Your task to perform on an android device: Search for Italian restaurants on Maps Image 0: 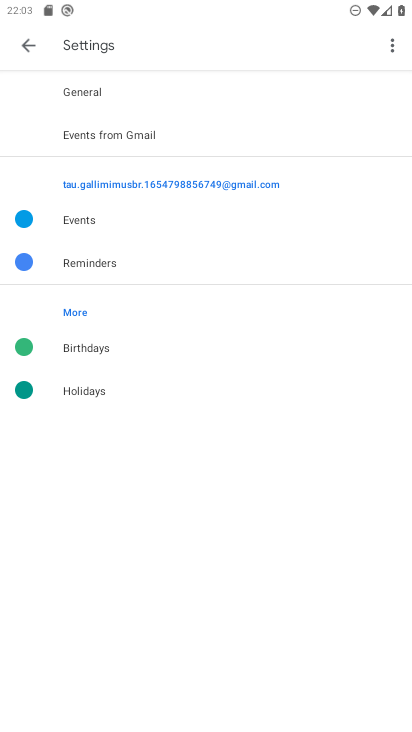
Step 0: press home button
Your task to perform on an android device: Search for Italian restaurants on Maps Image 1: 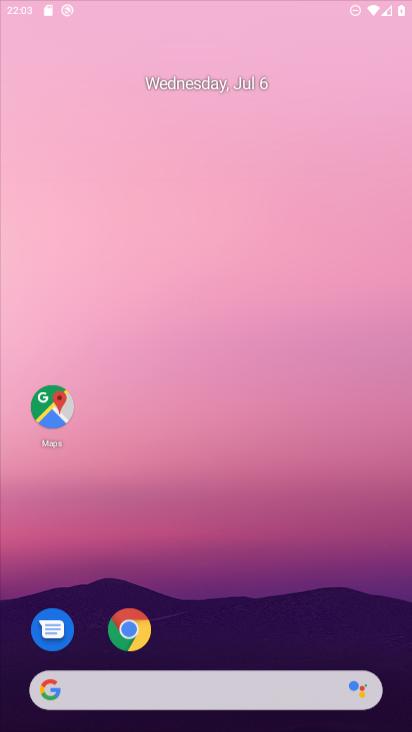
Step 1: drag from (317, 481) to (239, 6)
Your task to perform on an android device: Search for Italian restaurants on Maps Image 2: 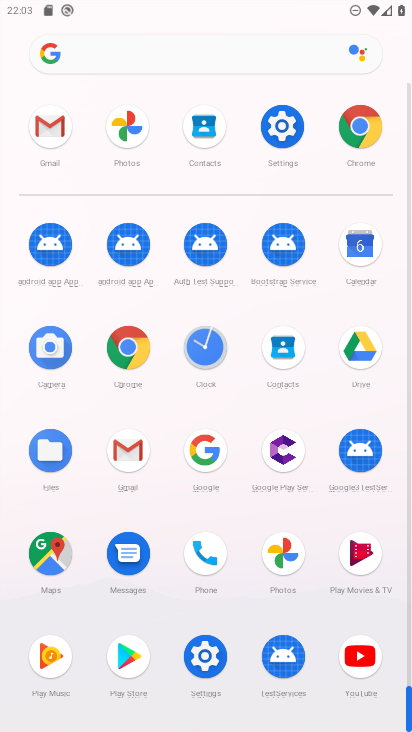
Step 2: click (61, 145)
Your task to perform on an android device: Search for Italian restaurants on Maps Image 3: 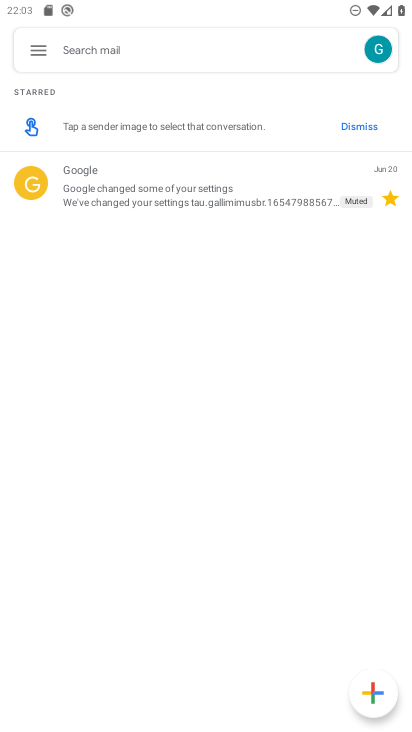
Step 3: press home button
Your task to perform on an android device: Search for Italian restaurants on Maps Image 4: 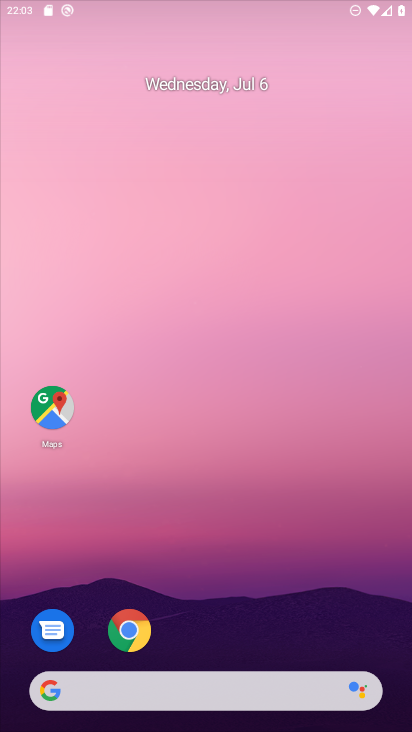
Step 4: drag from (281, 581) to (282, 698)
Your task to perform on an android device: Search for Italian restaurants on Maps Image 5: 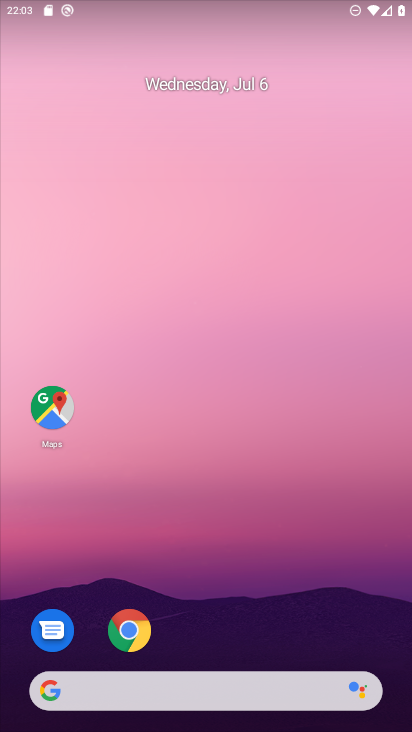
Step 5: click (48, 402)
Your task to perform on an android device: Search for Italian restaurants on Maps Image 6: 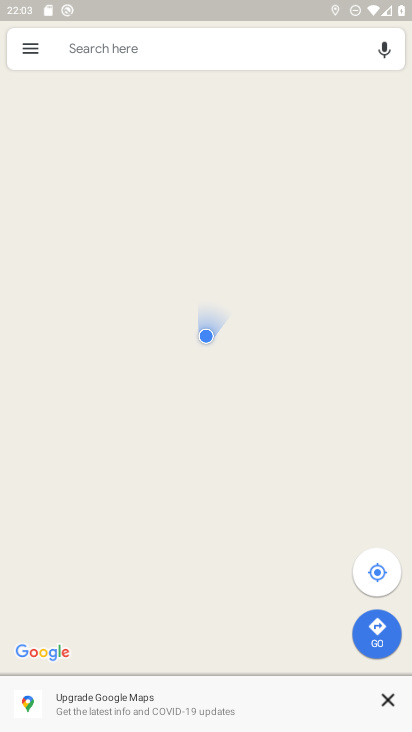
Step 6: click (244, 59)
Your task to perform on an android device: Search for Italian restaurants on Maps Image 7: 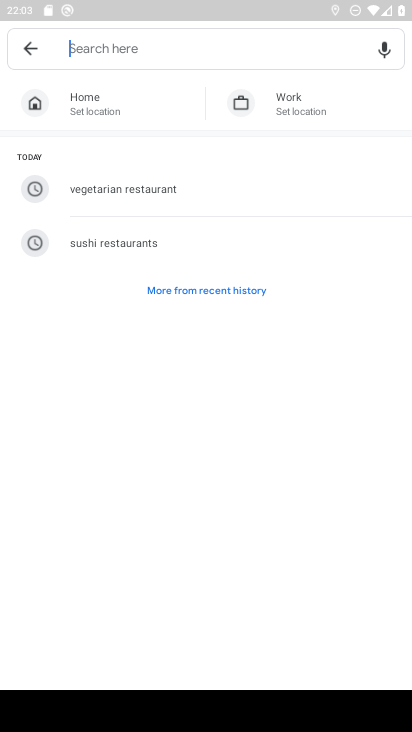
Step 7: type "Italian restaurants "
Your task to perform on an android device: Search for Italian restaurants on Maps Image 8: 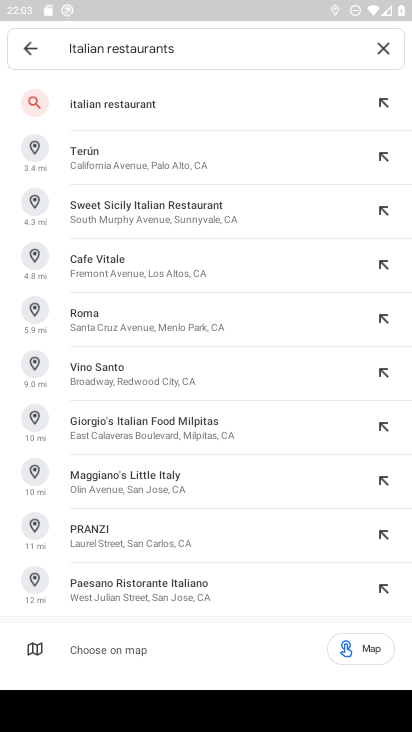
Step 8: click (134, 109)
Your task to perform on an android device: Search for Italian restaurants on Maps Image 9: 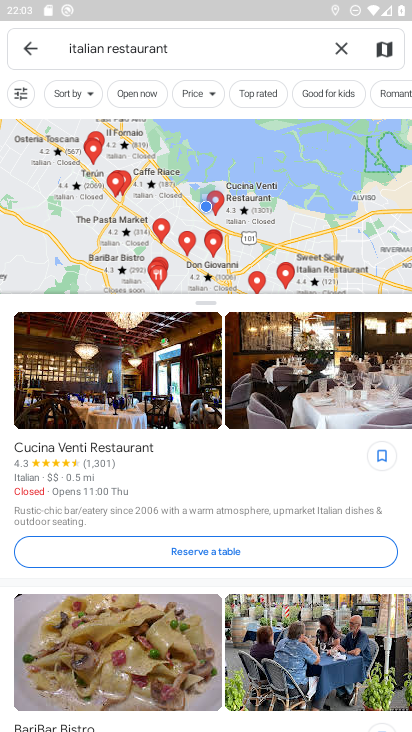
Step 9: task complete